Your task to perform on an android device: turn off location Image 0: 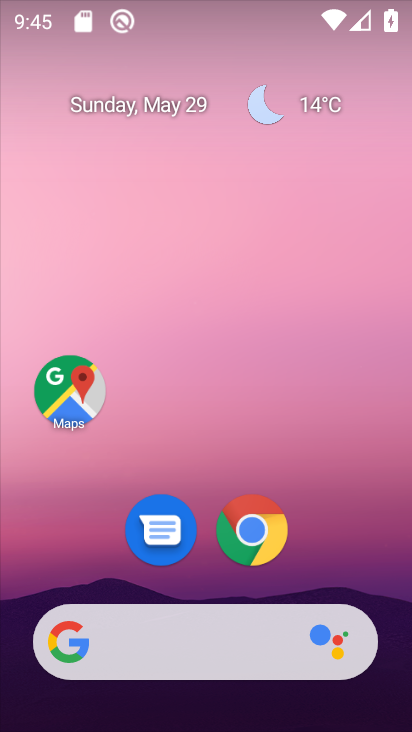
Step 0: drag from (209, 644) to (180, 53)
Your task to perform on an android device: turn off location Image 1: 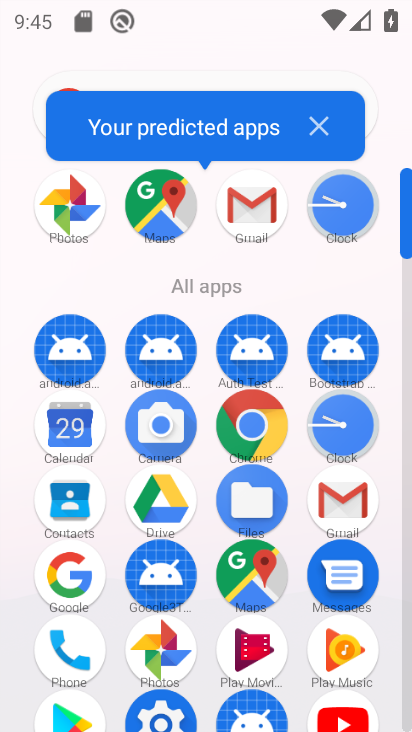
Step 1: click (174, 708)
Your task to perform on an android device: turn off location Image 2: 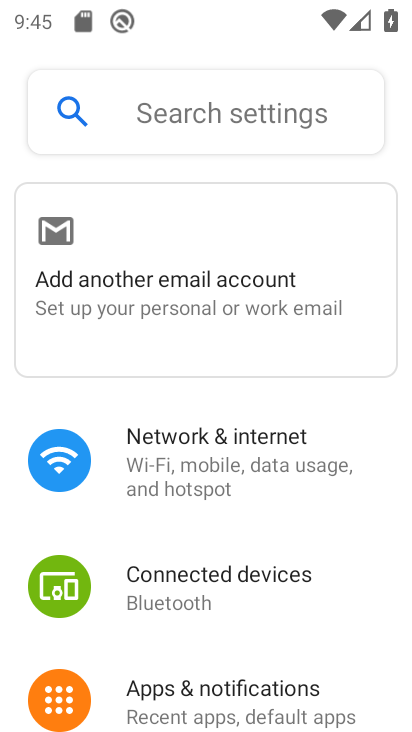
Step 2: drag from (180, 644) to (237, 79)
Your task to perform on an android device: turn off location Image 3: 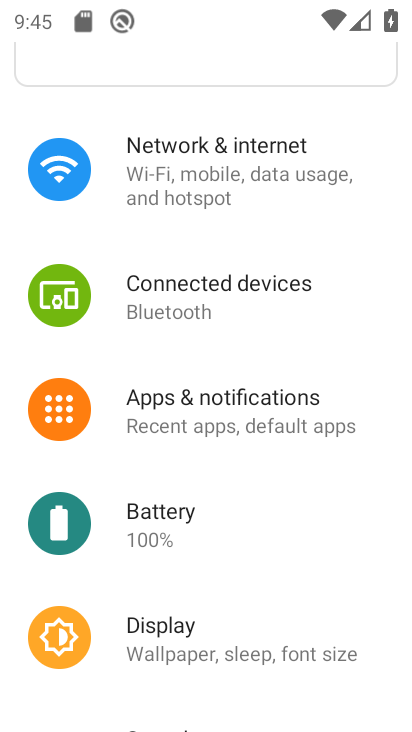
Step 3: drag from (243, 530) to (216, 3)
Your task to perform on an android device: turn off location Image 4: 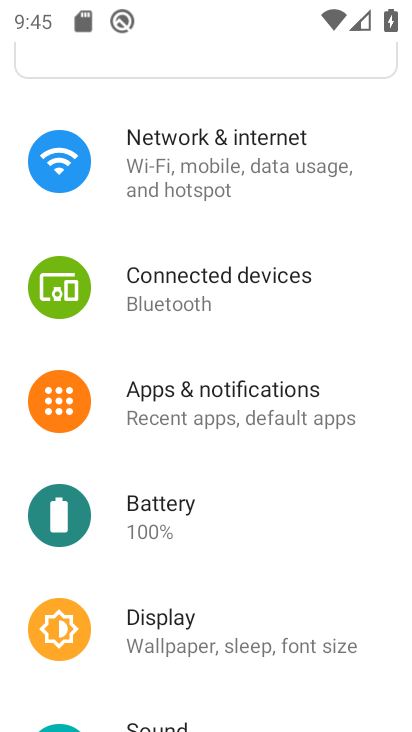
Step 4: drag from (114, 623) to (56, 167)
Your task to perform on an android device: turn off location Image 5: 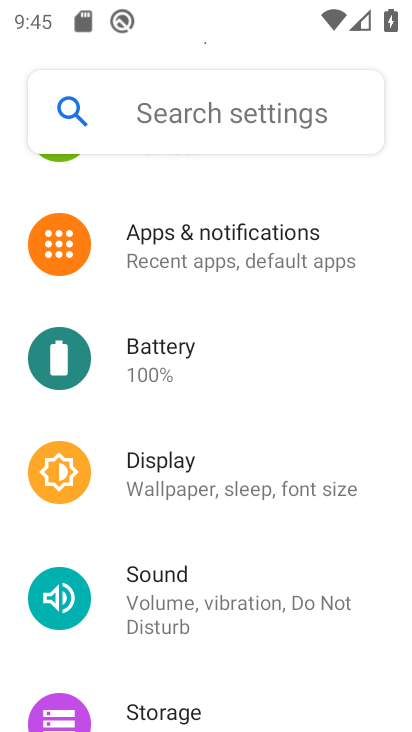
Step 5: drag from (210, 586) to (225, 12)
Your task to perform on an android device: turn off location Image 6: 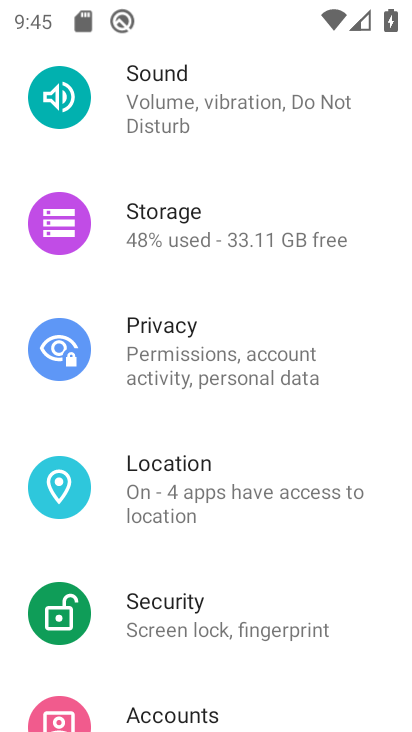
Step 6: click (162, 486)
Your task to perform on an android device: turn off location Image 7: 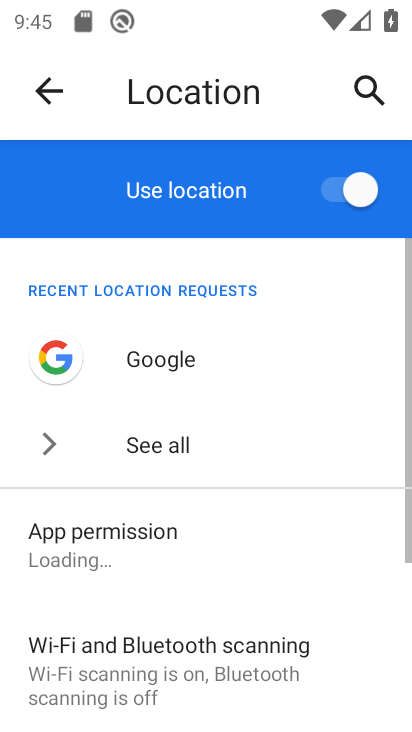
Step 7: click (359, 186)
Your task to perform on an android device: turn off location Image 8: 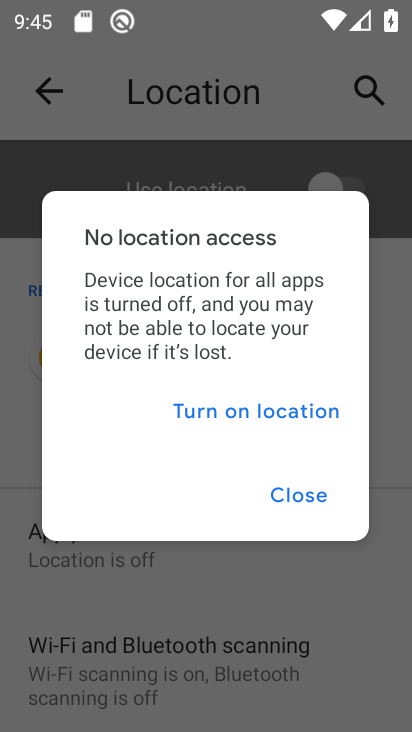
Step 8: click (299, 486)
Your task to perform on an android device: turn off location Image 9: 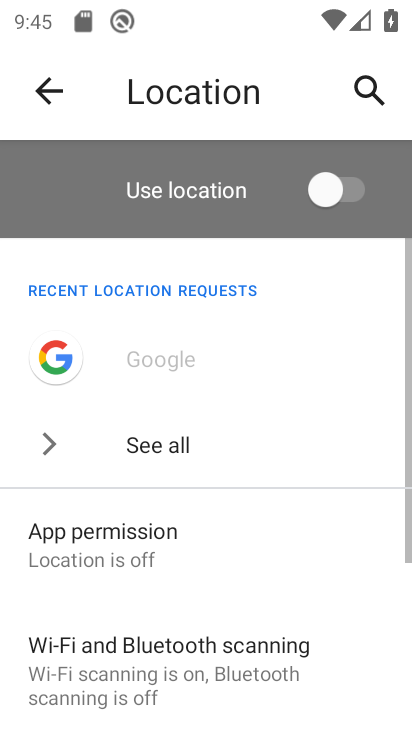
Step 9: task complete